Your task to perform on an android device: Add panasonic triple a to the cart on amazon, then select checkout. Image 0: 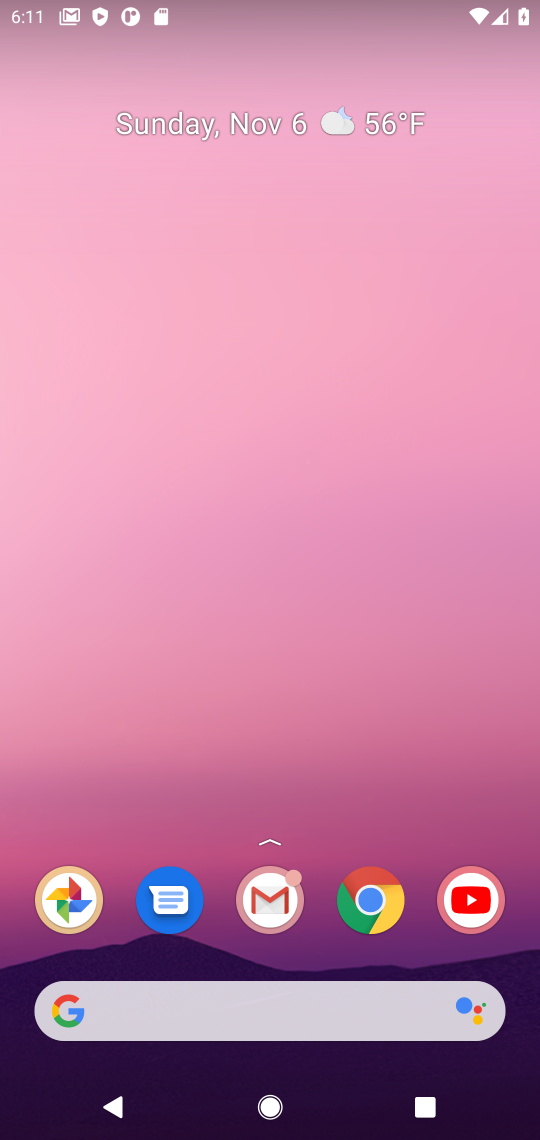
Step 0: drag from (316, 980) to (372, 89)
Your task to perform on an android device: Add panasonic triple a to the cart on amazon, then select checkout. Image 1: 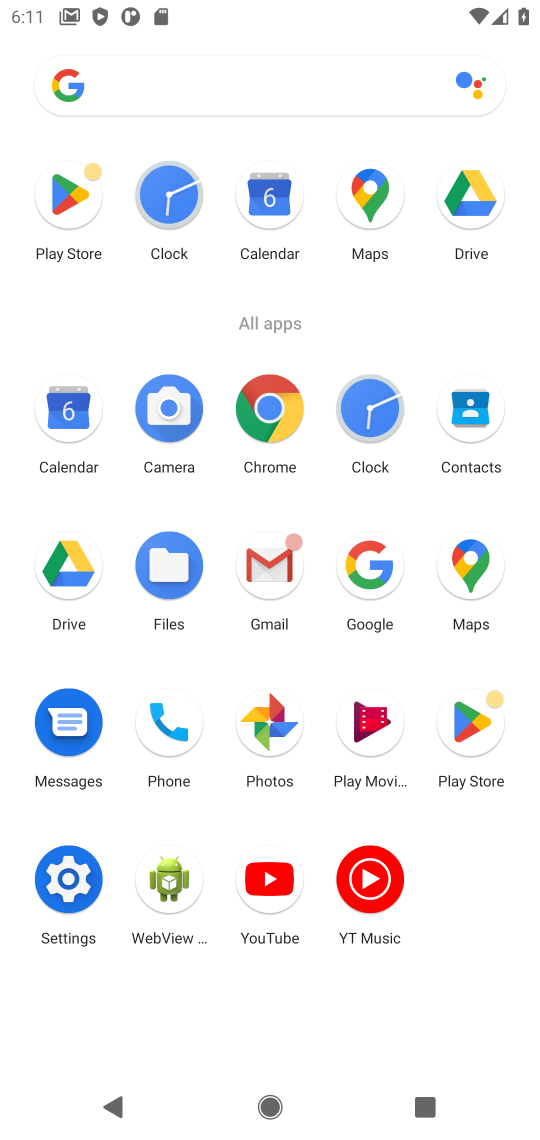
Step 1: click (283, 398)
Your task to perform on an android device: Add panasonic triple a to the cart on amazon, then select checkout. Image 2: 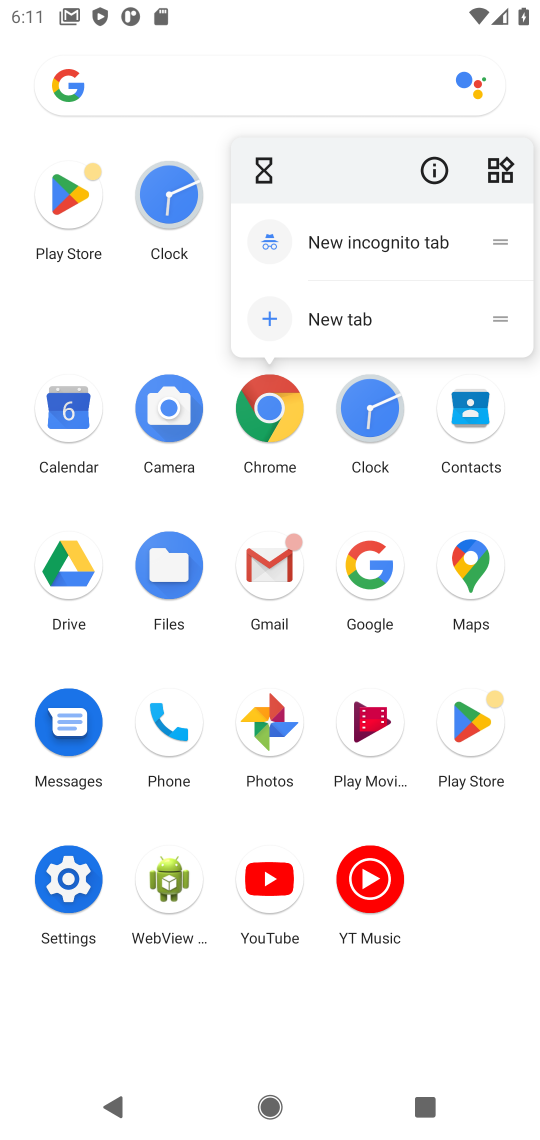
Step 2: click (274, 413)
Your task to perform on an android device: Add panasonic triple a to the cart on amazon, then select checkout. Image 3: 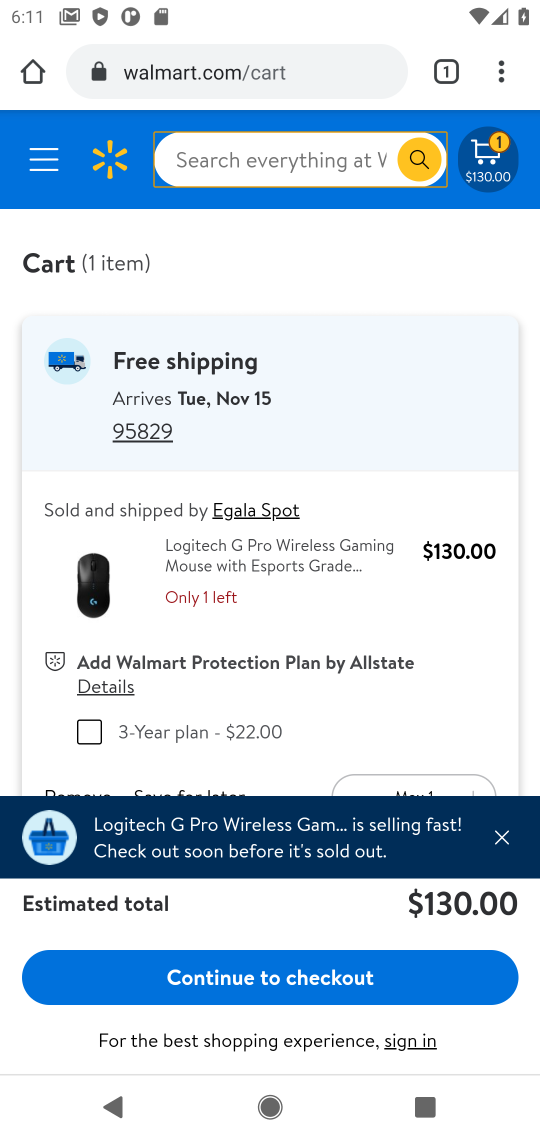
Step 3: click (265, 67)
Your task to perform on an android device: Add panasonic triple a to the cart on amazon, then select checkout. Image 4: 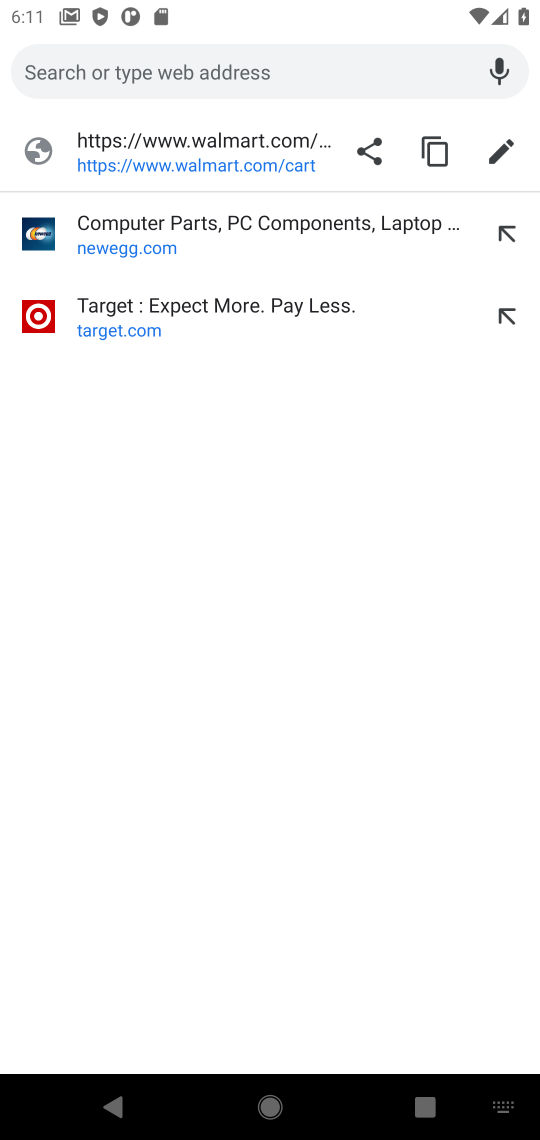
Step 4: type "amazon.com"
Your task to perform on an android device: Add panasonic triple a to the cart on amazon, then select checkout. Image 5: 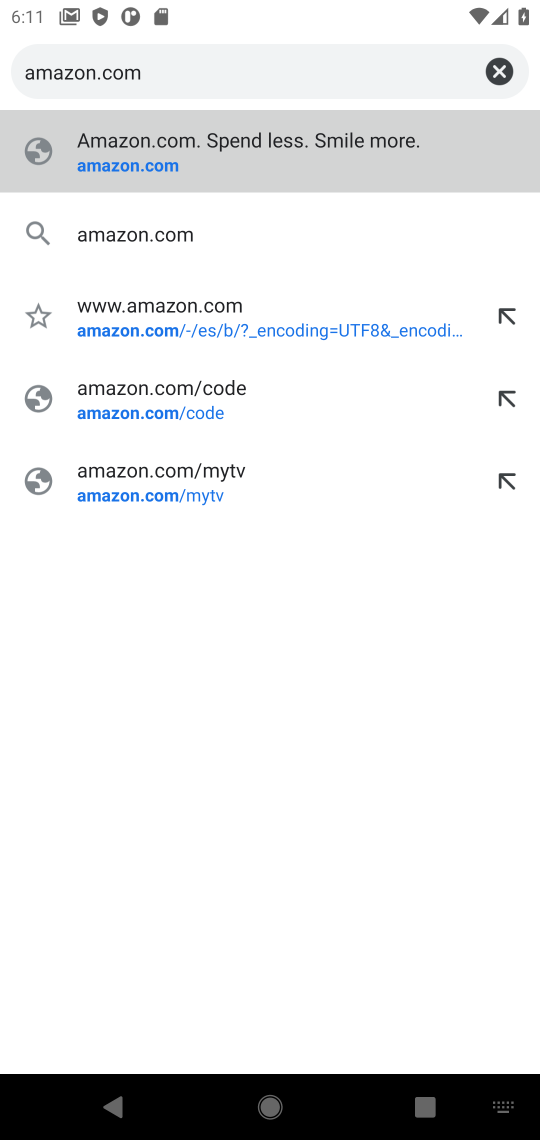
Step 5: press enter
Your task to perform on an android device: Add panasonic triple a to the cart on amazon, then select checkout. Image 6: 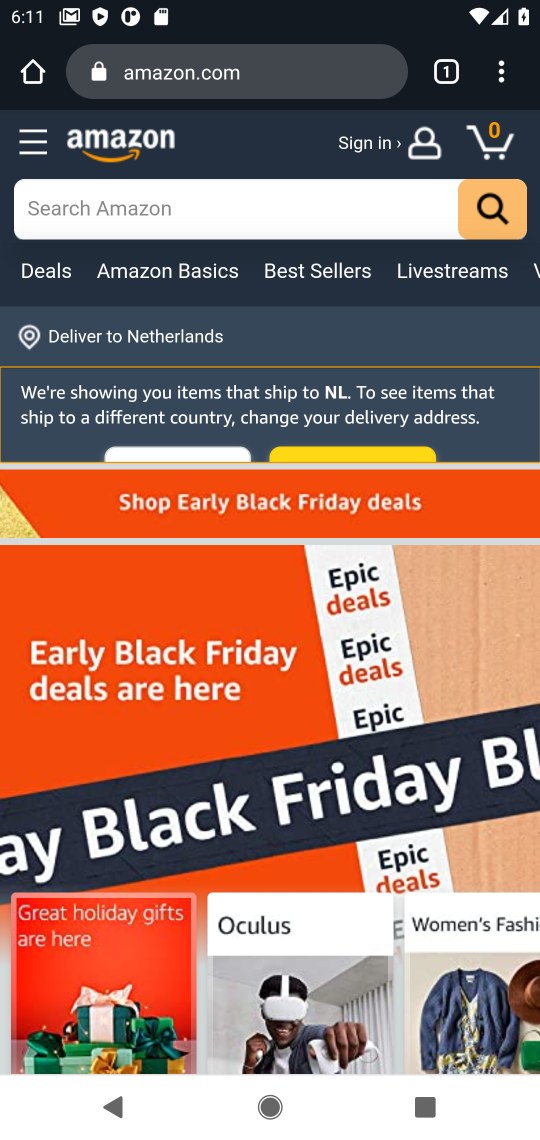
Step 6: click (276, 213)
Your task to perform on an android device: Add panasonic triple a to the cart on amazon, then select checkout. Image 7: 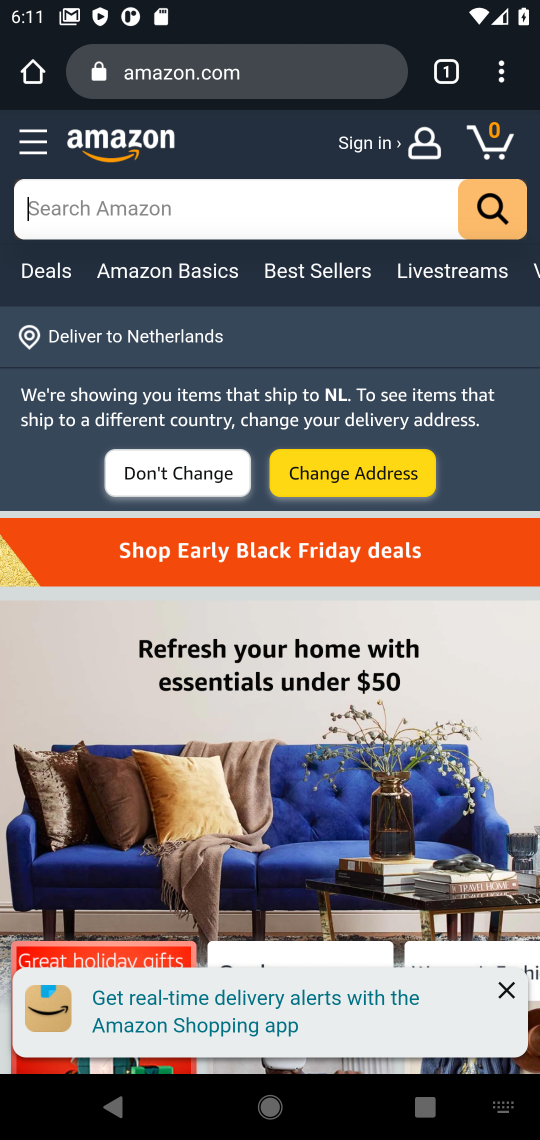
Step 7: type "panasonic triple a"
Your task to perform on an android device: Add panasonic triple a to the cart on amazon, then select checkout. Image 8: 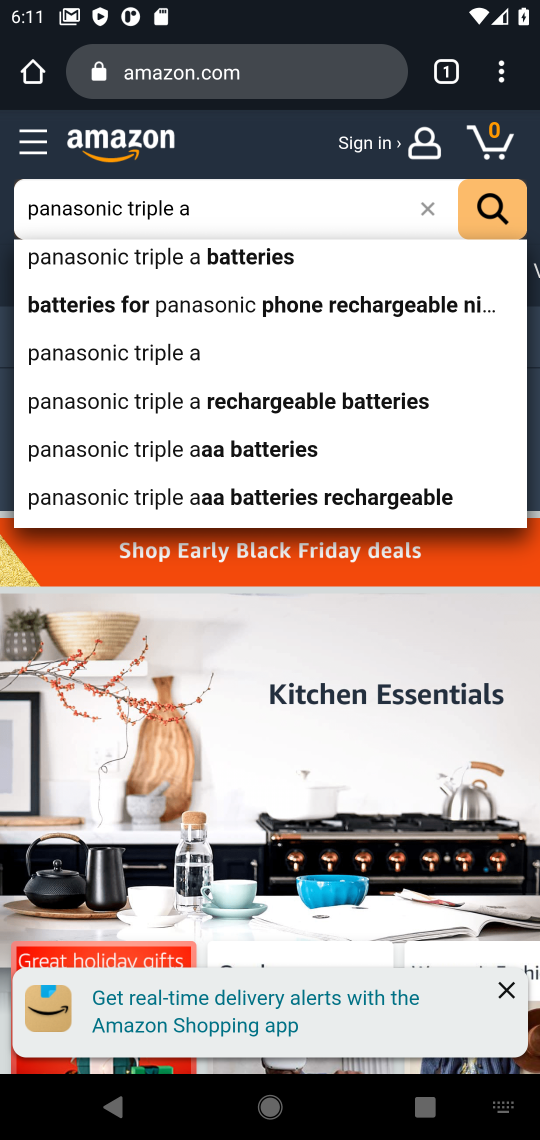
Step 8: press enter
Your task to perform on an android device: Add panasonic triple a to the cart on amazon, then select checkout. Image 9: 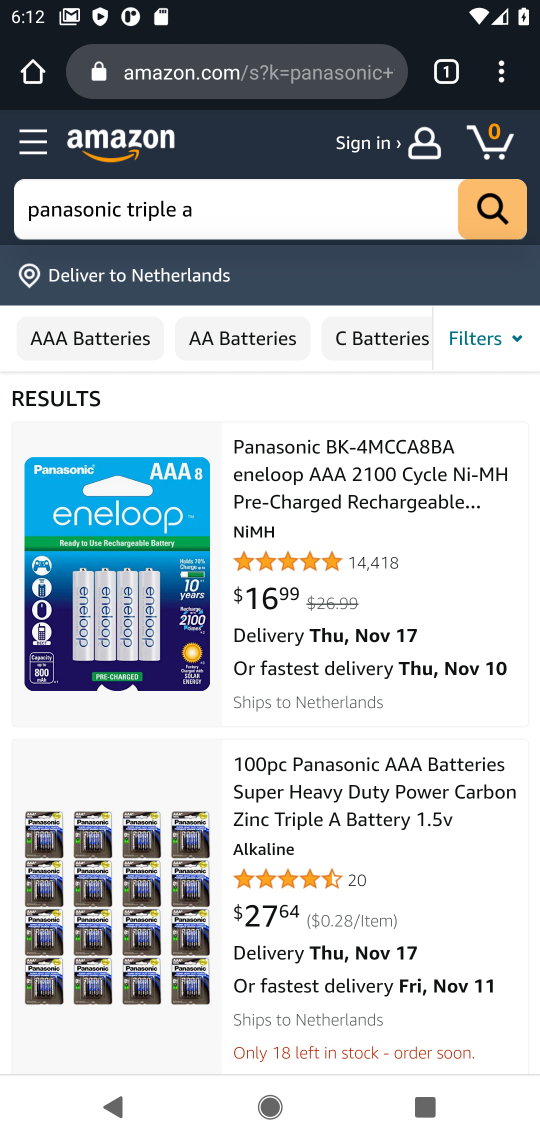
Step 9: click (116, 540)
Your task to perform on an android device: Add panasonic triple a to the cart on amazon, then select checkout. Image 10: 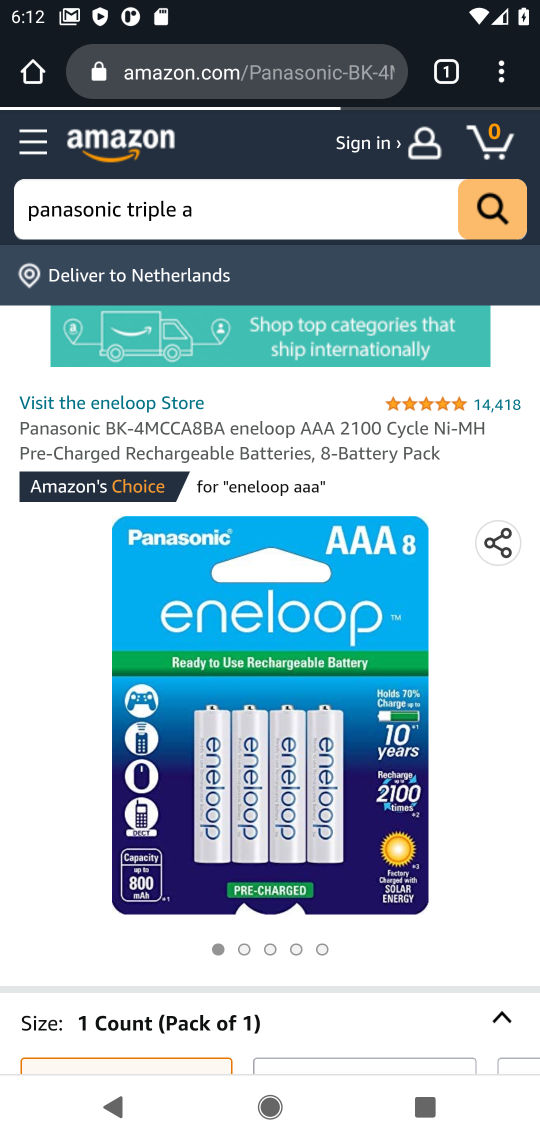
Step 10: drag from (346, 888) to (378, 24)
Your task to perform on an android device: Add panasonic triple a to the cart on amazon, then select checkout. Image 11: 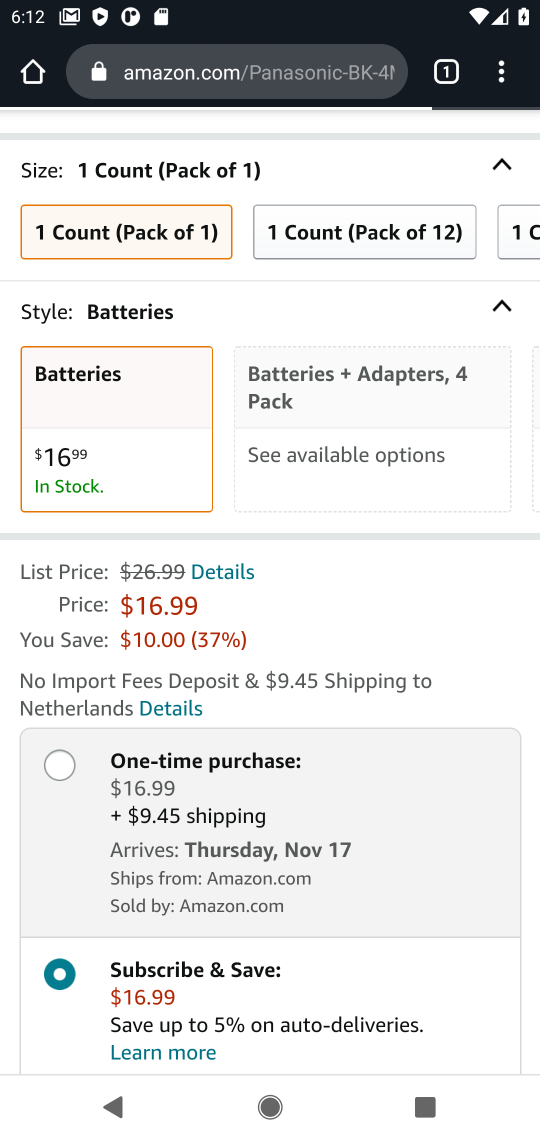
Step 11: drag from (337, 894) to (293, 106)
Your task to perform on an android device: Add panasonic triple a to the cart on amazon, then select checkout. Image 12: 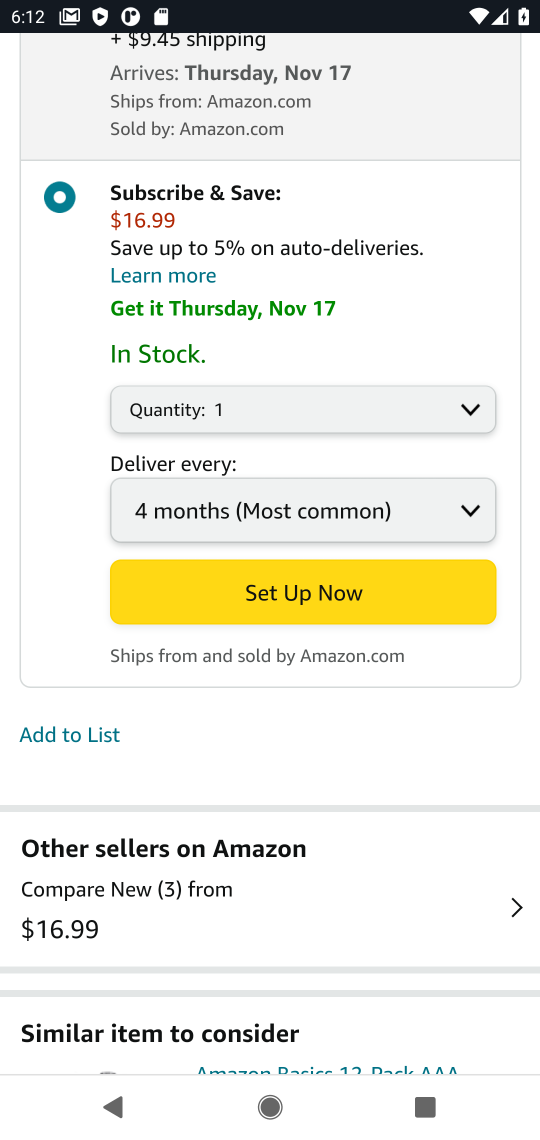
Step 12: drag from (372, 231) to (346, 747)
Your task to perform on an android device: Add panasonic triple a to the cart on amazon, then select checkout. Image 13: 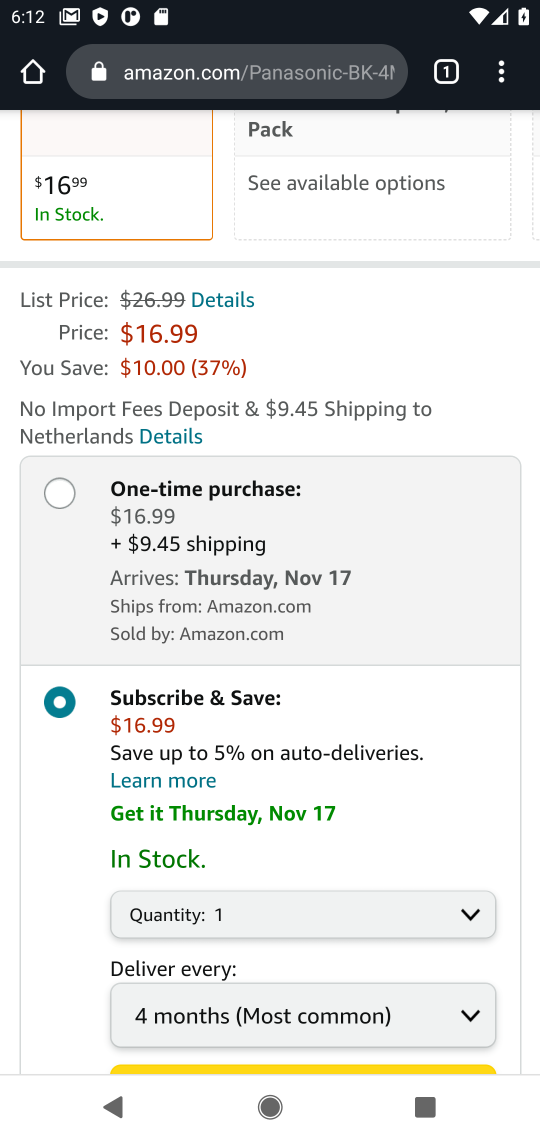
Step 13: click (53, 492)
Your task to perform on an android device: Add panasonic triple a to the cart on amazon, then select checkout. Image 14: 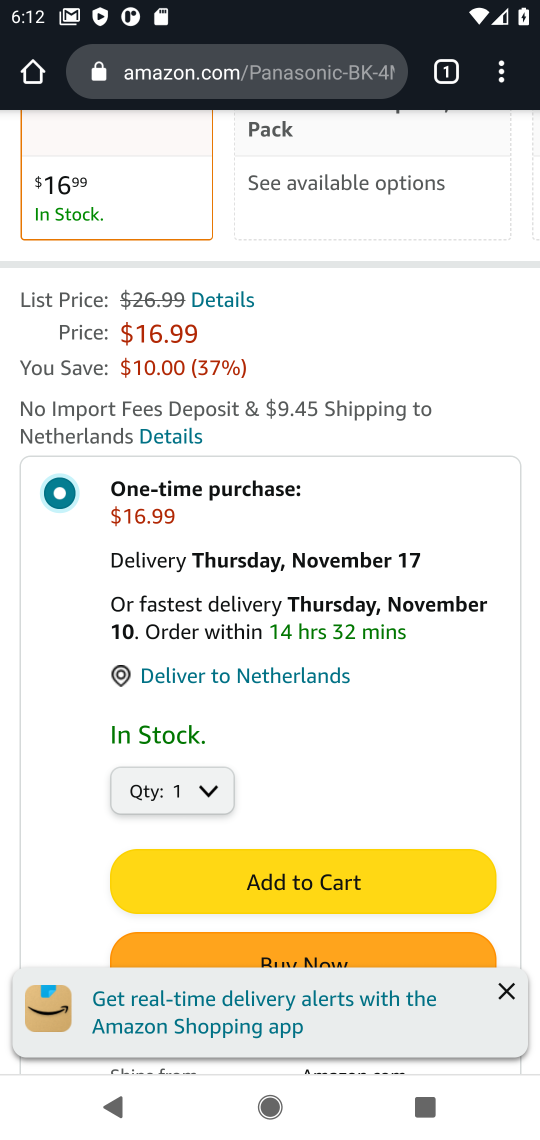
Step 14: click (361, 863)
Your task to perform on an android device: Add panasonic triple a to the cart on amazon, then select checkout. Image 15: 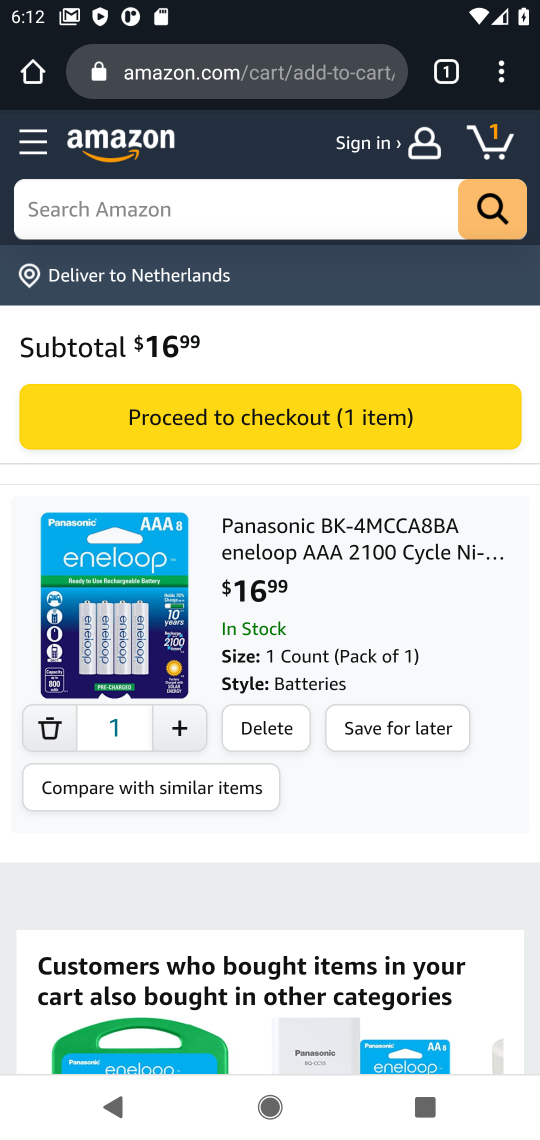
Step 15: click (313, 412)
Your task to perform on an android device: Add panasonic triple a to the cart on amazon, then select checkout. Image 16: 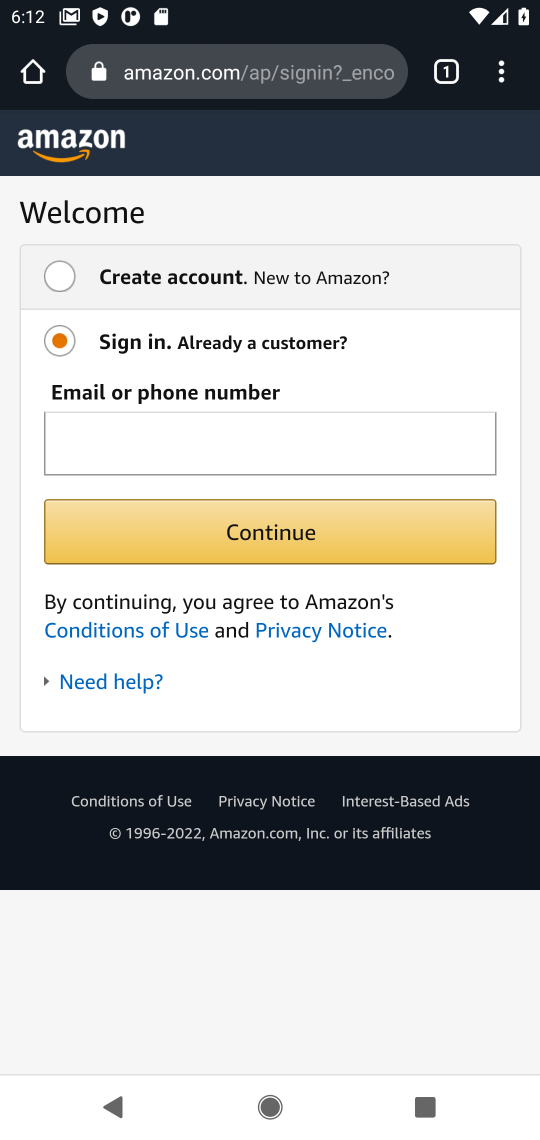
Step 16: task complete